Your task to perform on an android device: Turn on the flashlight Image 0: 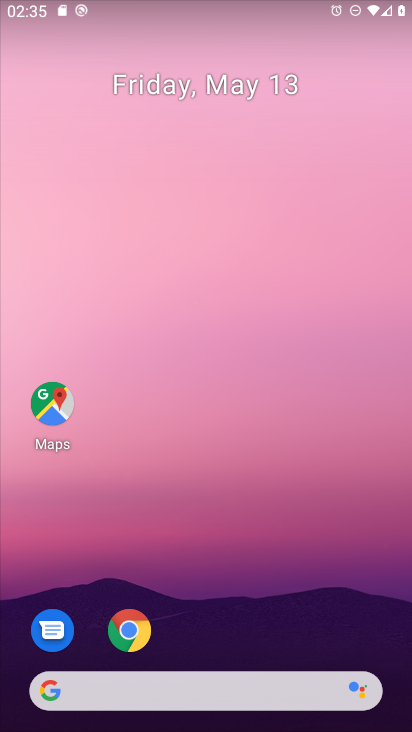
Step 0: drag from (271, 723) to (248, 276)
Your task to perform on an android device: Turn on the flashlight Image 1: 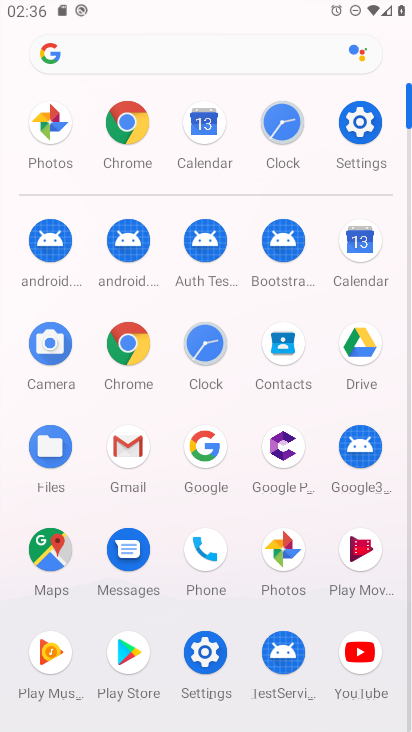
Step 1: click (359, 133)
Your task to perform on an android device: Turn on the flashlight Image 2: 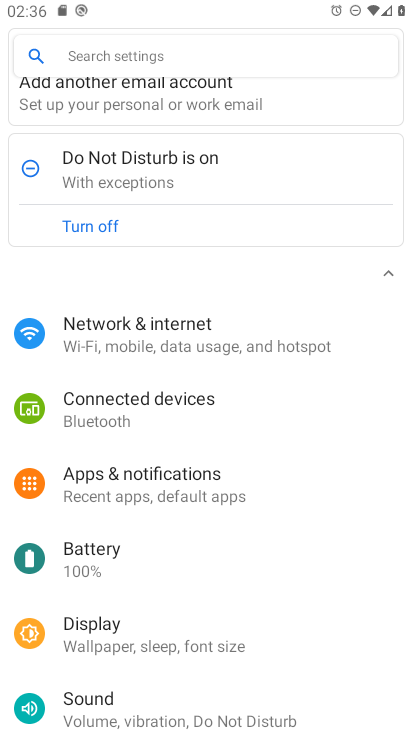
Step 2: click (158, 53)
Your task to perform on an android device: Turn on the flashlight Image 3: 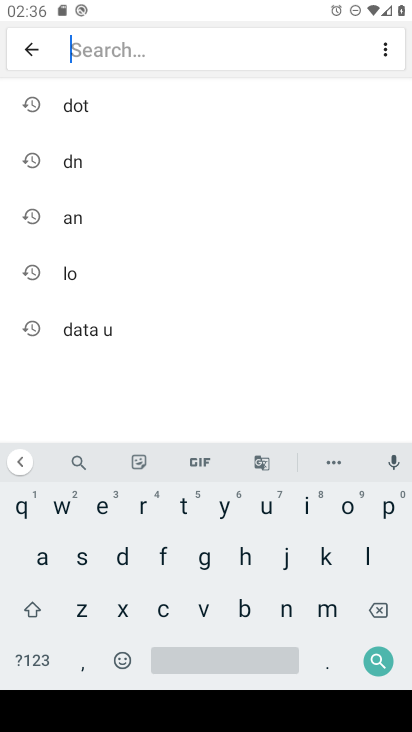
Step 3: click (163, 549)
Your task to perform on an android device: Turn on the flashlight Image 4: 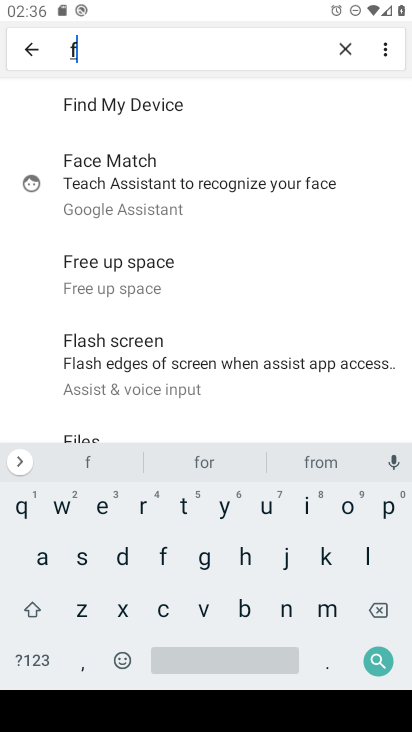
Step 4: click (362, 550)
Your task to perform on an android device: Turn on the flashlight Image 5: 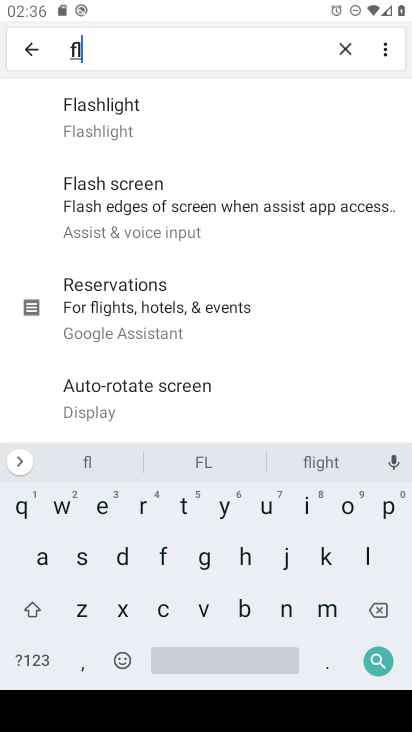
Step 5: click (192, 136)
Your task to perform on an android device: Turn on the flashlight Image 6: 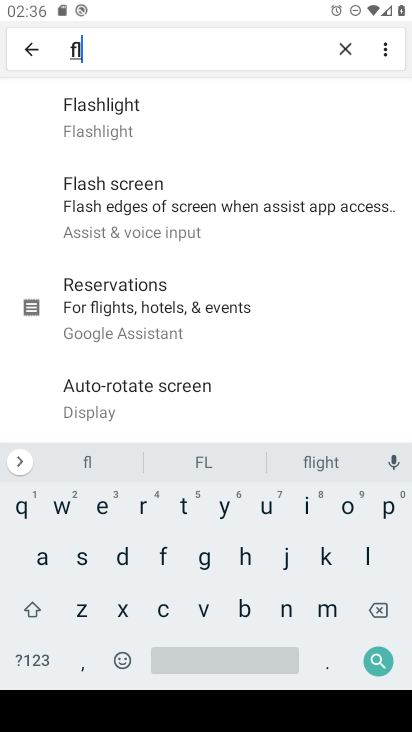
Step 6: task complete